Your task to perform on an android device: open chrome privacy settings Image 0: 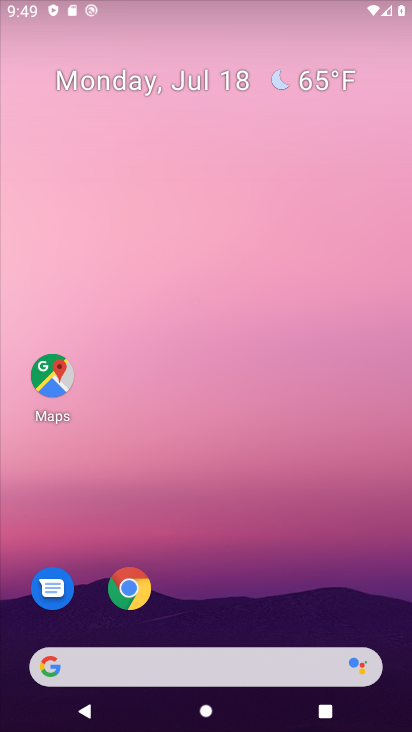
Step 0: press home button
Your task to perform on an android device: open chrome privacy settings Image 1: 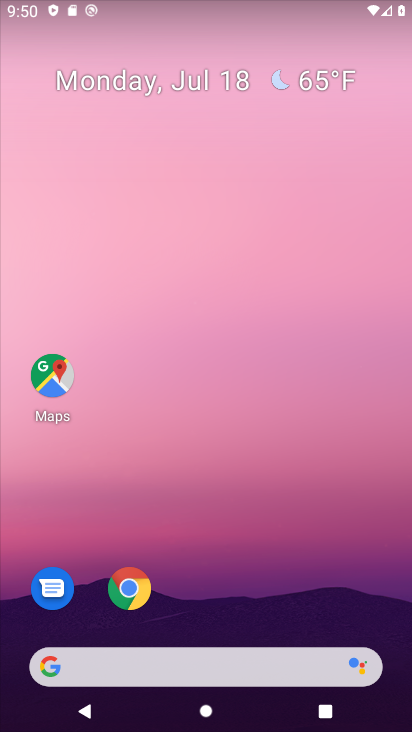
Step 1: drag from (255, 637) to (201, 137)
Your task to perform on an android device: open chrome privacy settings Image 2: 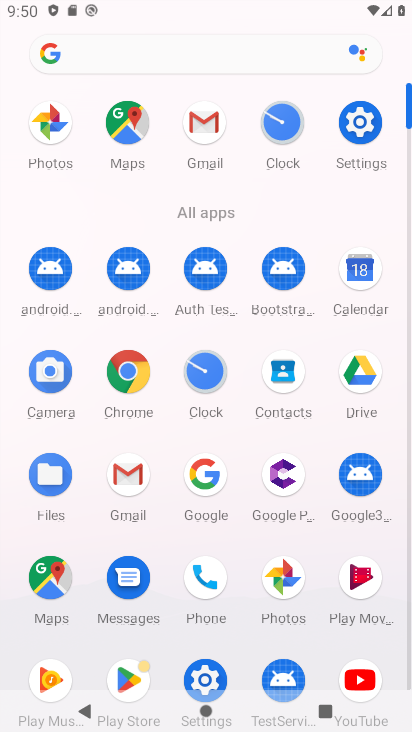
Step 2: click (126, 371)
Your task to perform on an android device: open chrome privacy settings Image 3: 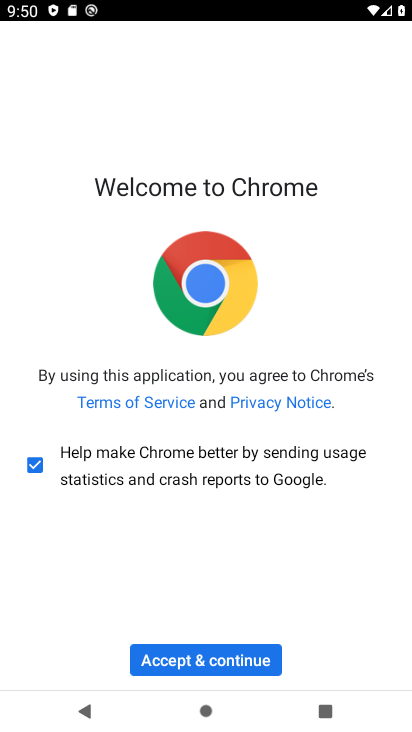
Step 3: click (210, 650)
Your task to perform on an android device: open chrome privacy settings Image 4: 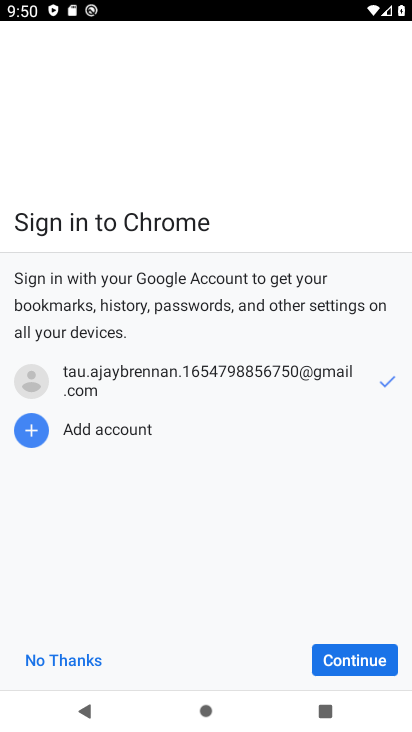
Step 4: click (362, 662)
Your task to perform on an android device: open chrome privacy settings Image 5: 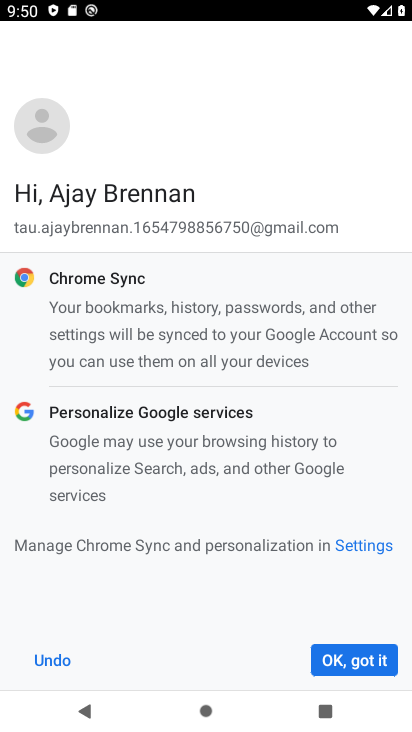
Step 5: click (362, 662)
Your task to perform on an android device: open chrome privacy settings Image 6: 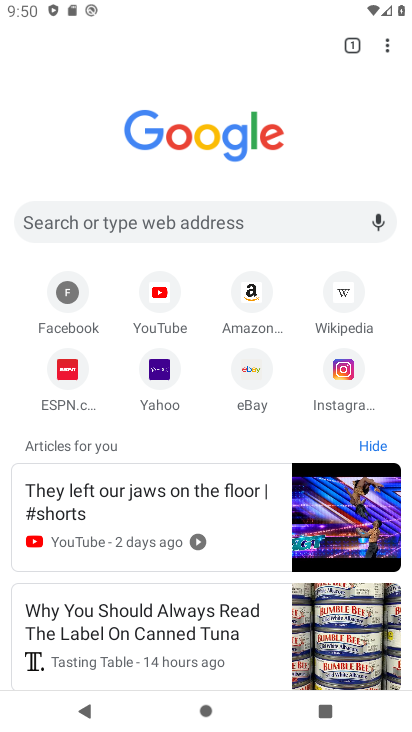
Step 6: drag from (388, 52) to (238, 387)
Your task to perform on an android device: open chrome privacy settings Image 7: 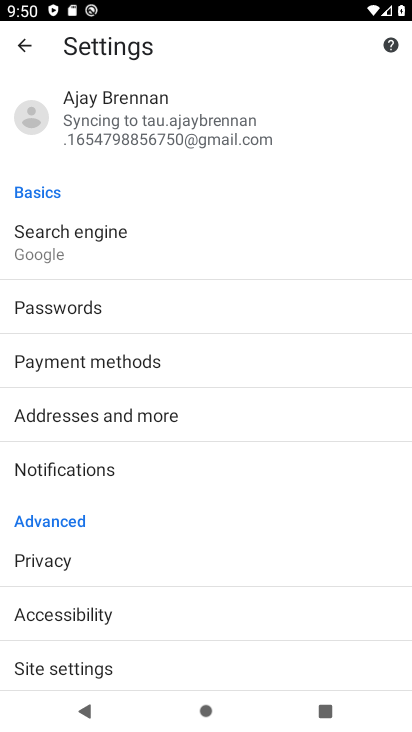
Step 7: click (47, 562)
Your task to perform on an android device: open chrome privacy settings Image 8: 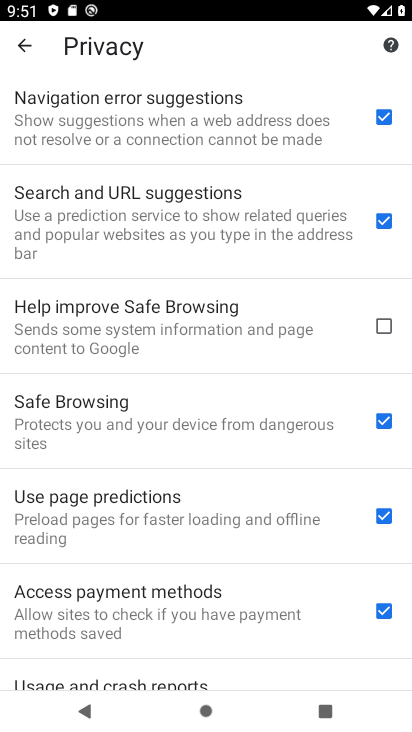
Step 8: task complete